Your task to perform on an android device: empty trash in the gmail app Image 0: 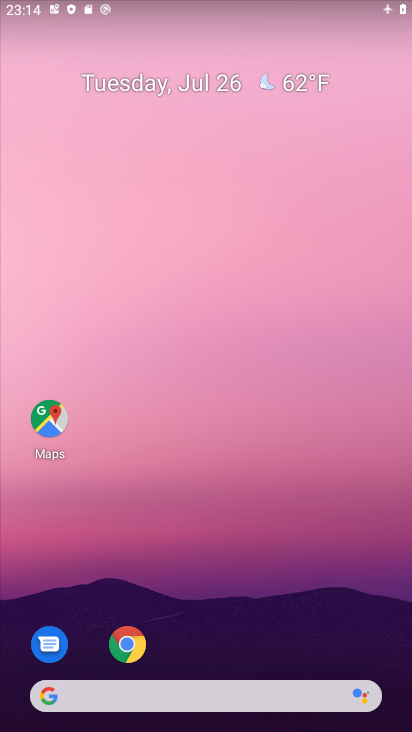
Step 0: drag from (324, 673) to (269, 9)
Your task to perform on an android device: empty trash in the gmail app Image 1: 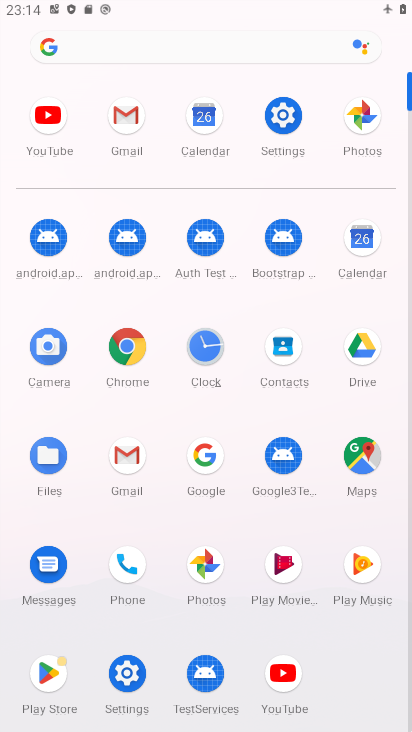
Step 1: click (133, 124)
Your task to perform on an android device: empty trash in the gmail app Image 2: 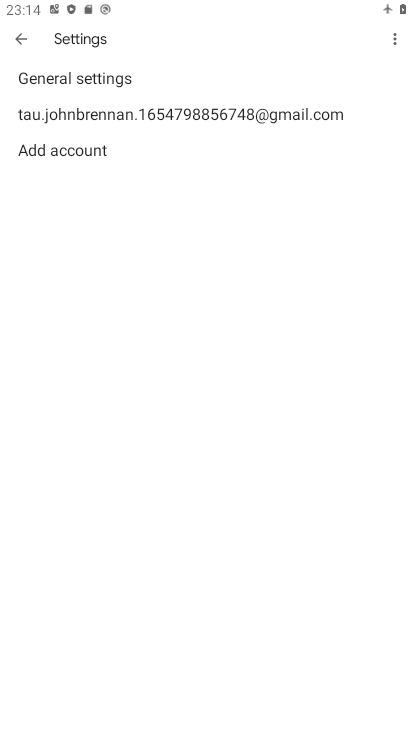
Step 2: click (17, 42)
Your task to perform on an android device: empty trash in the gmail app Image 3: 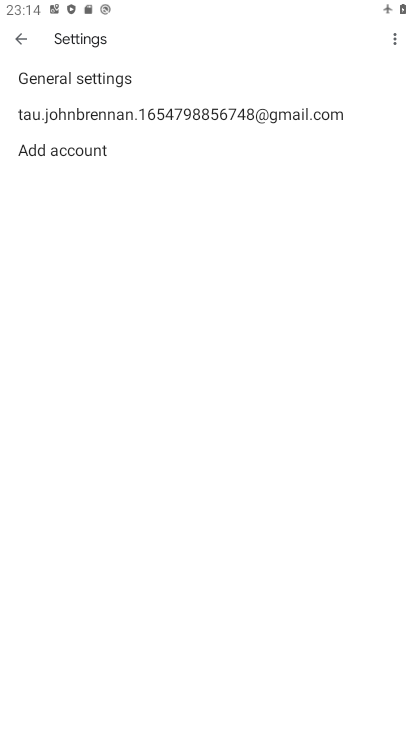
Step 3: click (22, 38)
Your task to perform on an android device: empty trash in the gmail app Image 4: 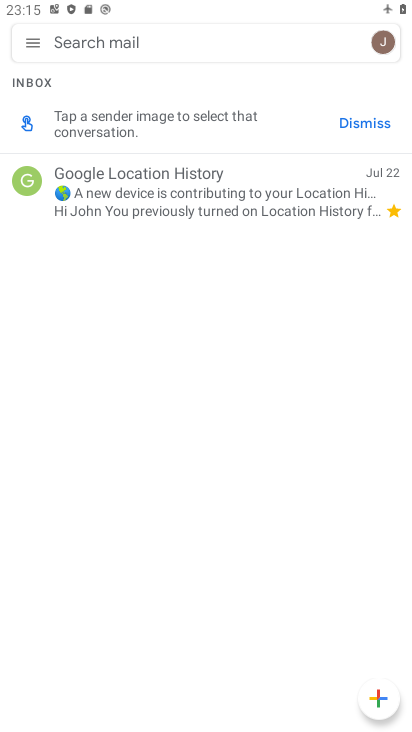
Step 4: click (33, 42)
Your task to perform on an android device: empty trash in the gmail app Image 5: 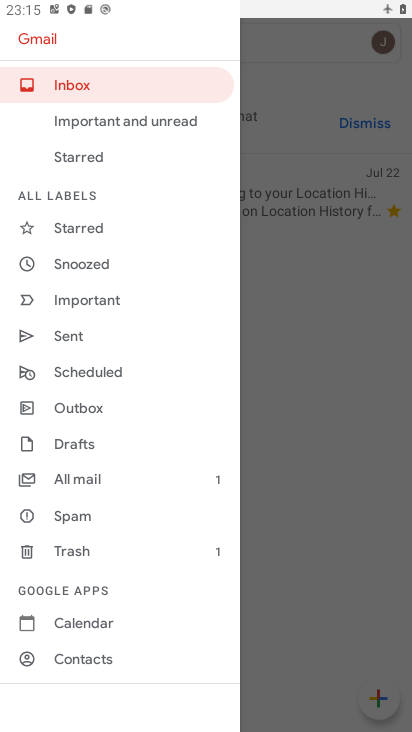
Step 5: click (66, 545)
Your task to perform on an android device: empty trash in the gmail app Image 6: 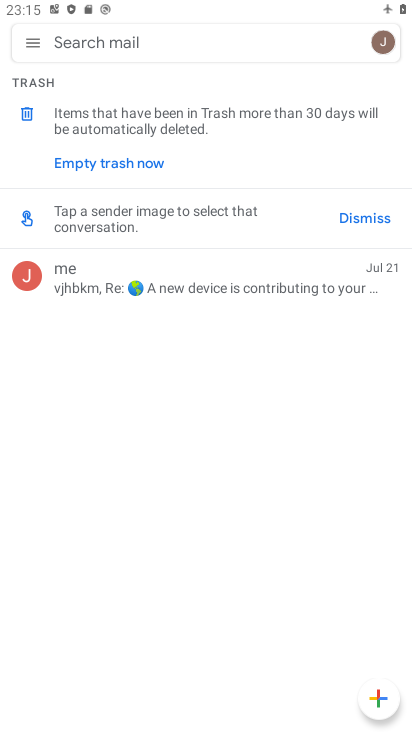
Step 6: click (67, 169)
Your task to perform on an android device: empty trash in the gmail app Image 7: 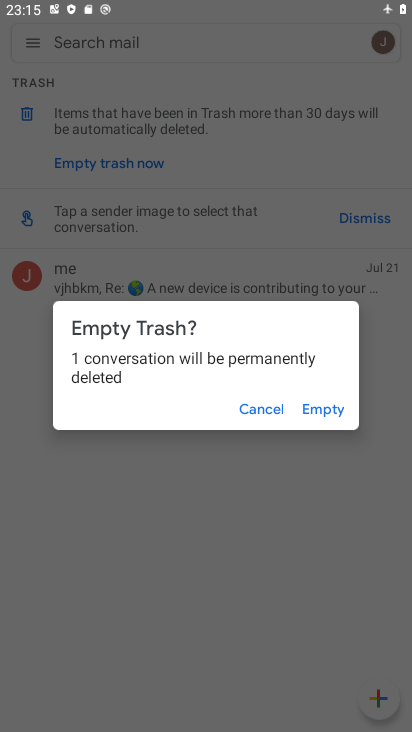
Step 7: click (315, 415)
Your task to perform on an android device: empty trash in the gmail app Image 8: 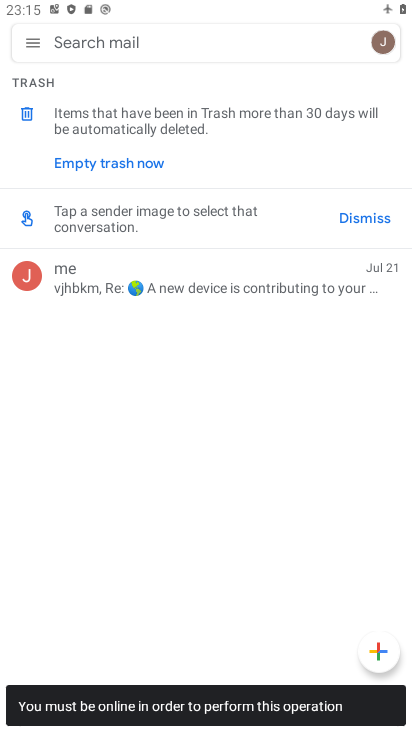
Step 8: task complete